Your task to perform on an android device: turn on translation in the chrome app Image 0: 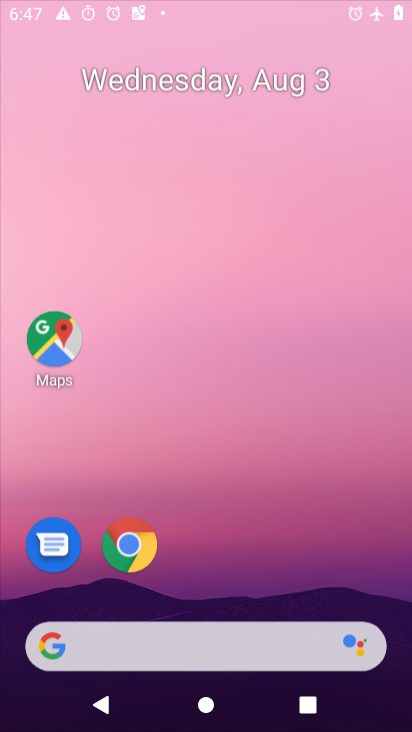
Step 0: press home button
Your task to perform on an android device: turn on translation in the chrome app Image 1: 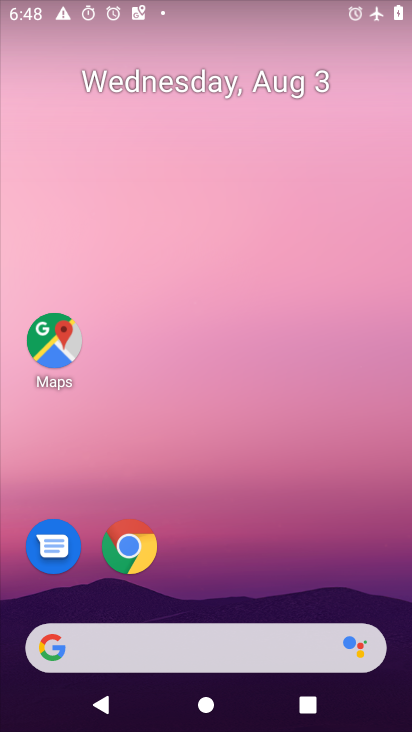
Step 1: click (124, 537)
Your task to perform on an android device: turn on translation in the chrome app Image 2: 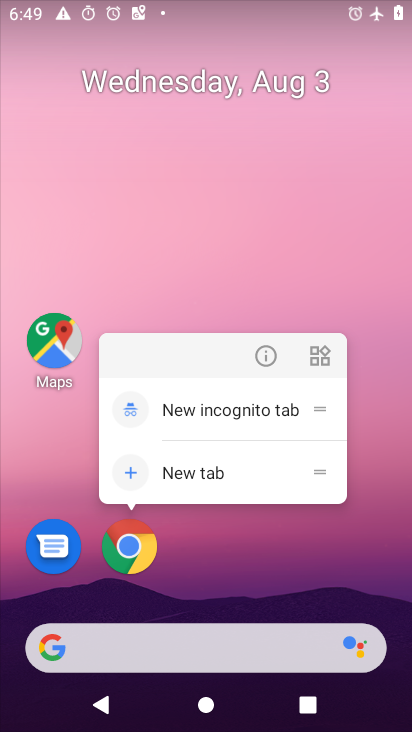
Step 2: click (132, 545)
Your task to perform on an android device: turn on translation in the chrome app Image 3: 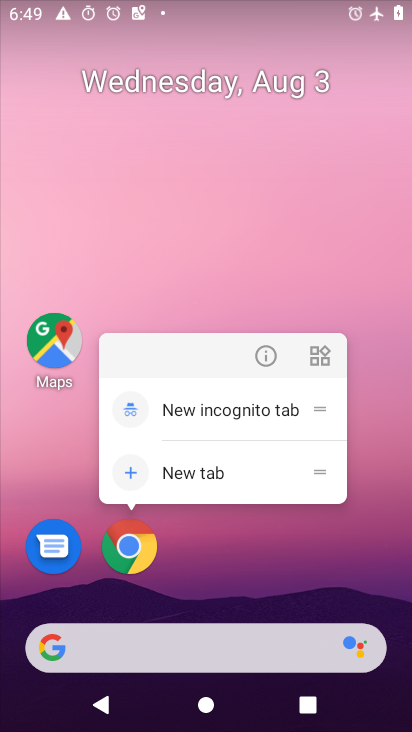
Step 3: click (132, 545)
Your task to perform on an android device: turn on translation in the chrome app Image 4: 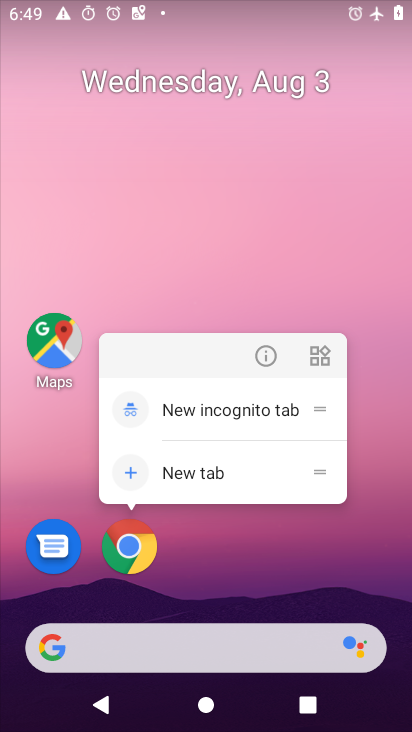
Step 4: click (132, 545)
Your task to perform on an android device: turn on translation in the chrome app Image 5: 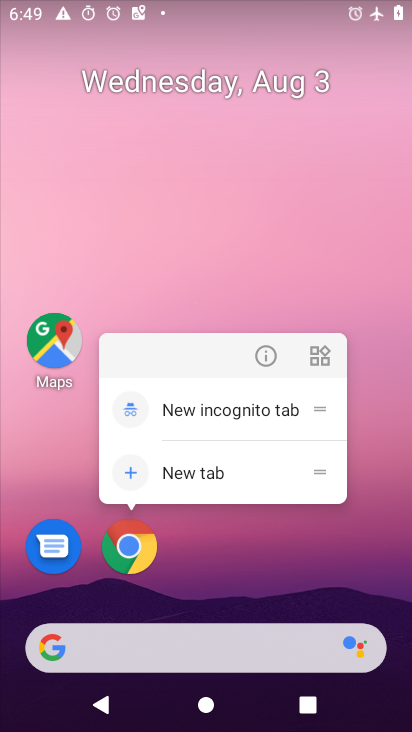
Step 5: click (137, 544)
Your task to perform on an android device: turn on translation in the chrome app Image 6: 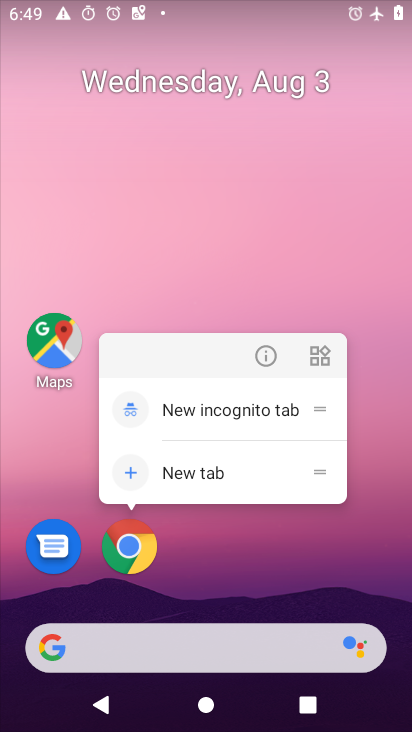
Step 6: click (114, 530)
Your task to perform on an android device: turn on translation in the chrome app Image 7: 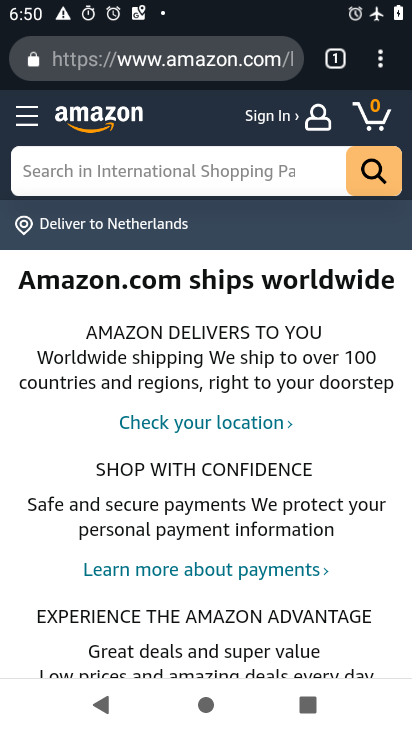
Step 7: drag from (387, 60) to (217, 575)
Your task to perform on an android device: turn on translation in the chrome app Image 8: 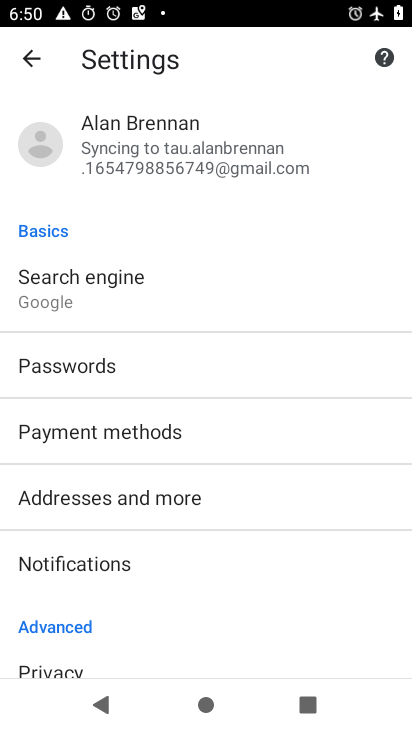
Step 8: drag from (251, 552) to (126, 137)
Your task to perform on an android device: turn on translation in the chrome app Image 9: 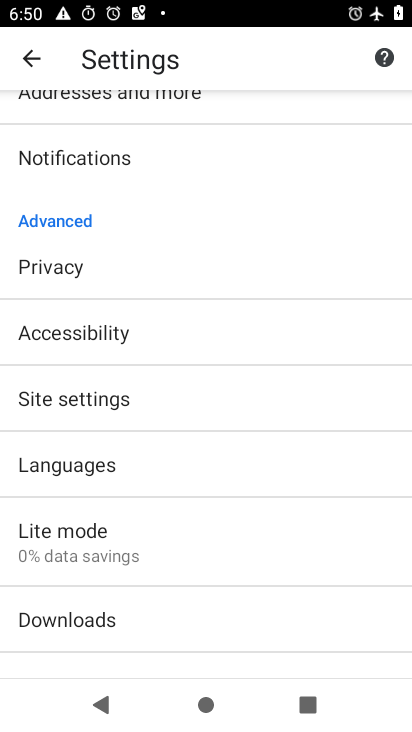
Step 9: click (52, 464)
Your task to perform on an android device: turn on translation in the chrome app Image 10: 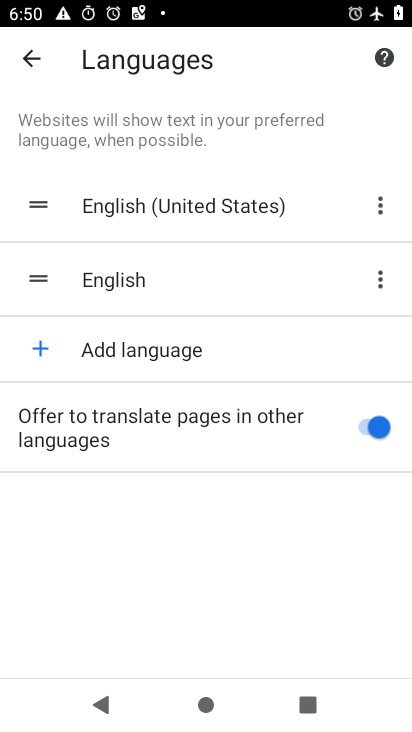
Step 10: task complete